Your task to perform on an android device: toggle javascript in the chrome app Image 0: 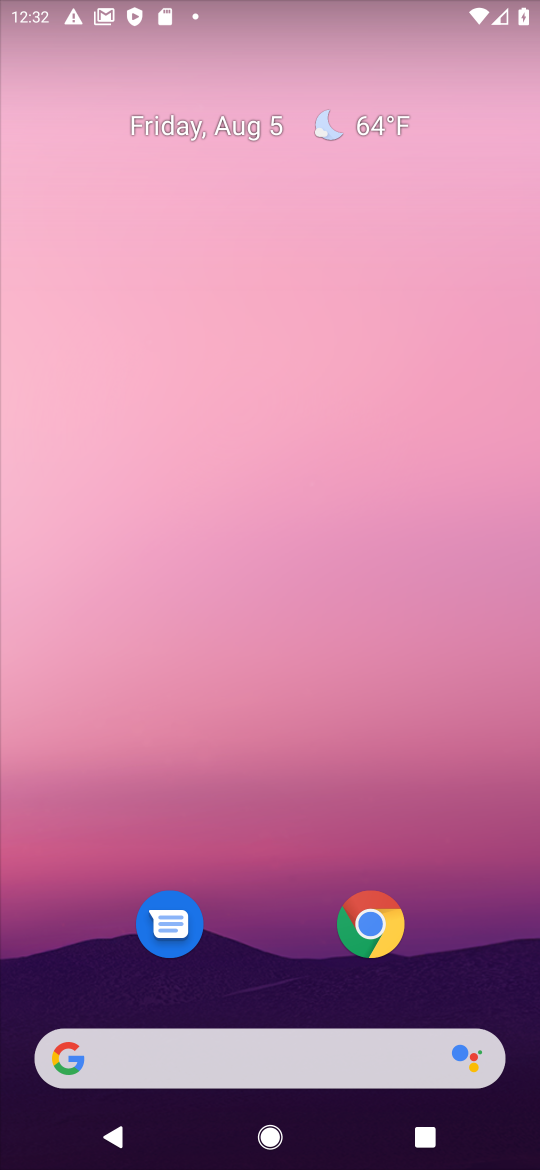
Step 0: press home button
Your task to perform on an android device: toggle javascript in the chrome app Image 1: 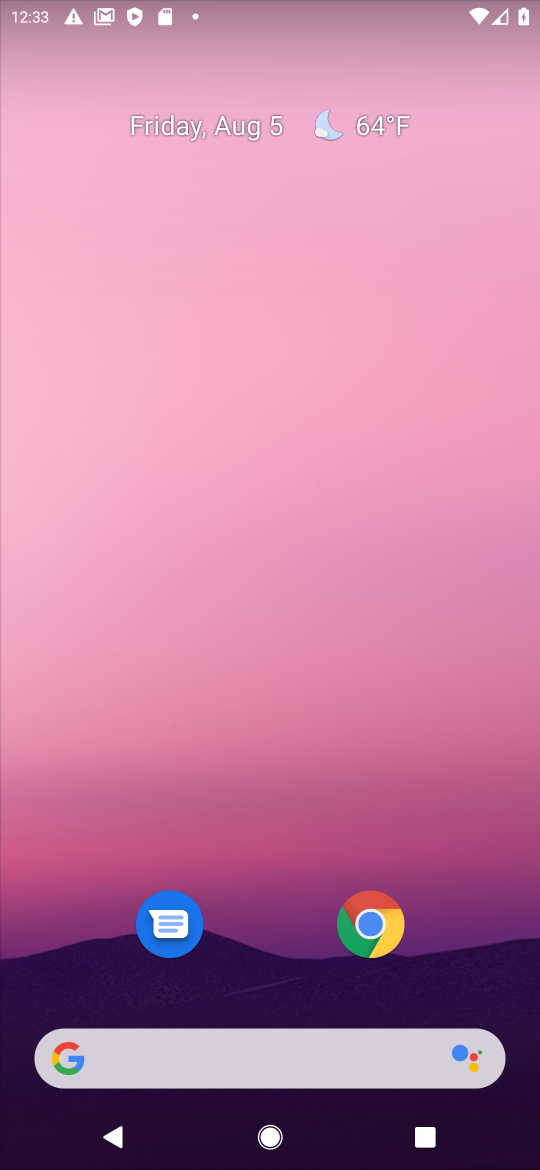
Step 1: click (361, 944)
Your task to perform on an android device: toggle javascript in the chrome app Image 2: 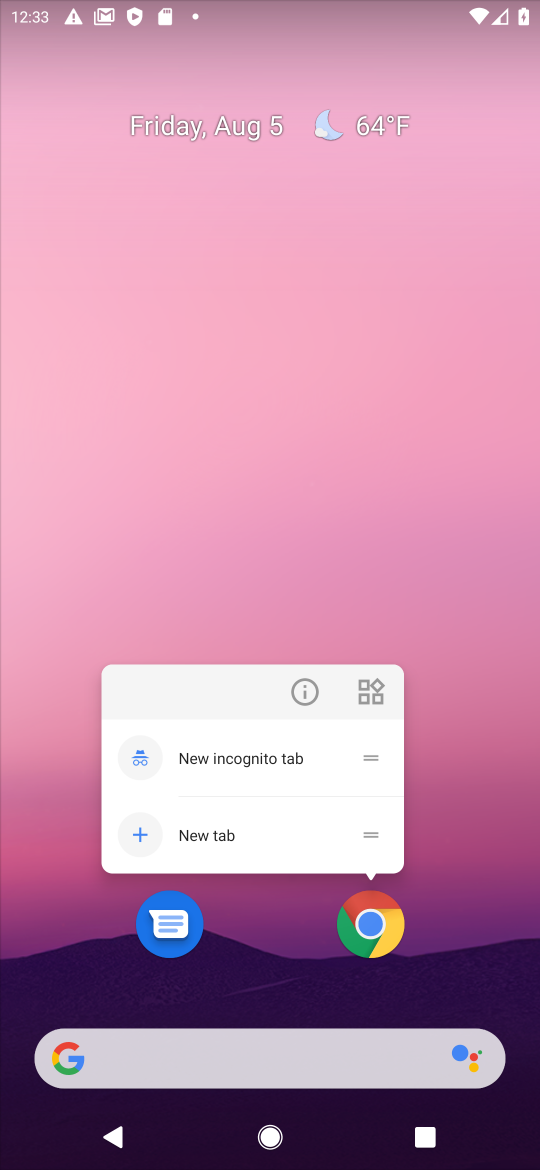
Step 2: click (350, 921)
Your task to perform on an android device: toggle javascript in the chrome app Image 3: 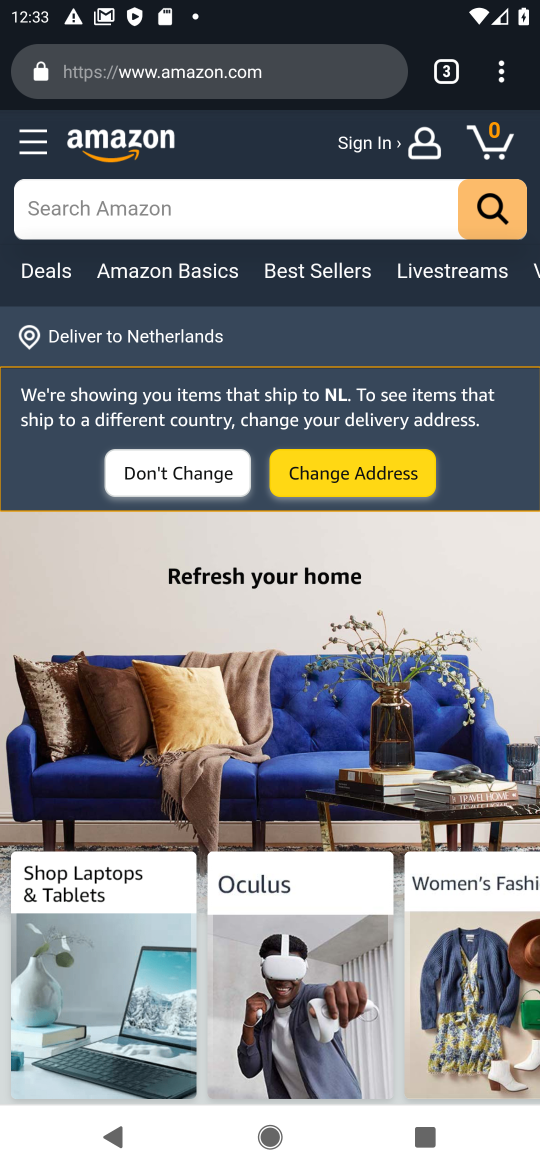
Step 3: drag from (492, 74) to (215, 864)
Your task to perform on an android device: toggle javascript in the chrome app Image 4: 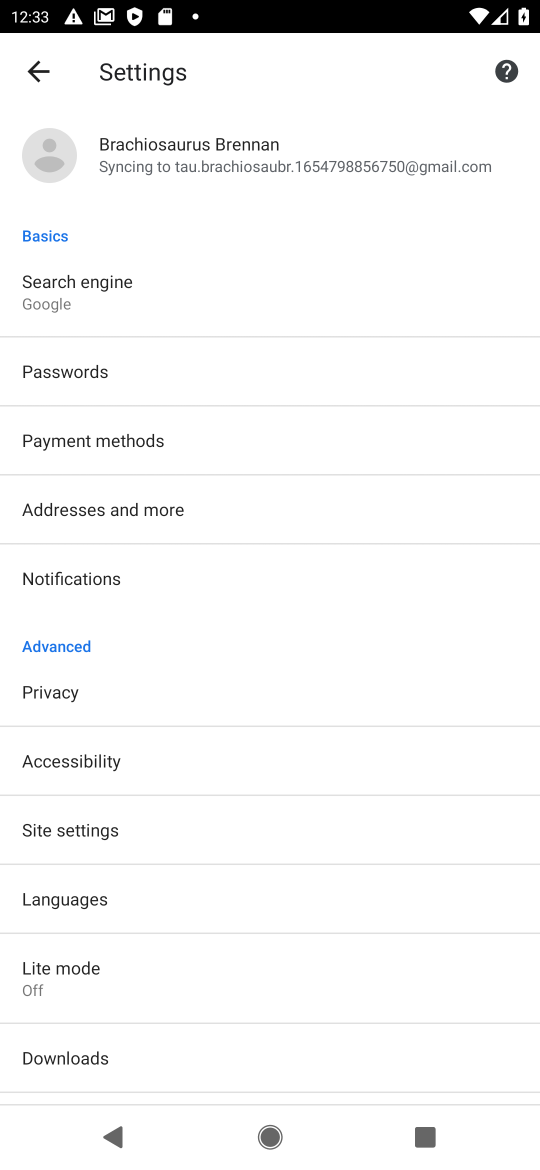
Step 4: click (77, 831)
Your task to perform on an android device: toggle javascript in the chrome app Image 5: 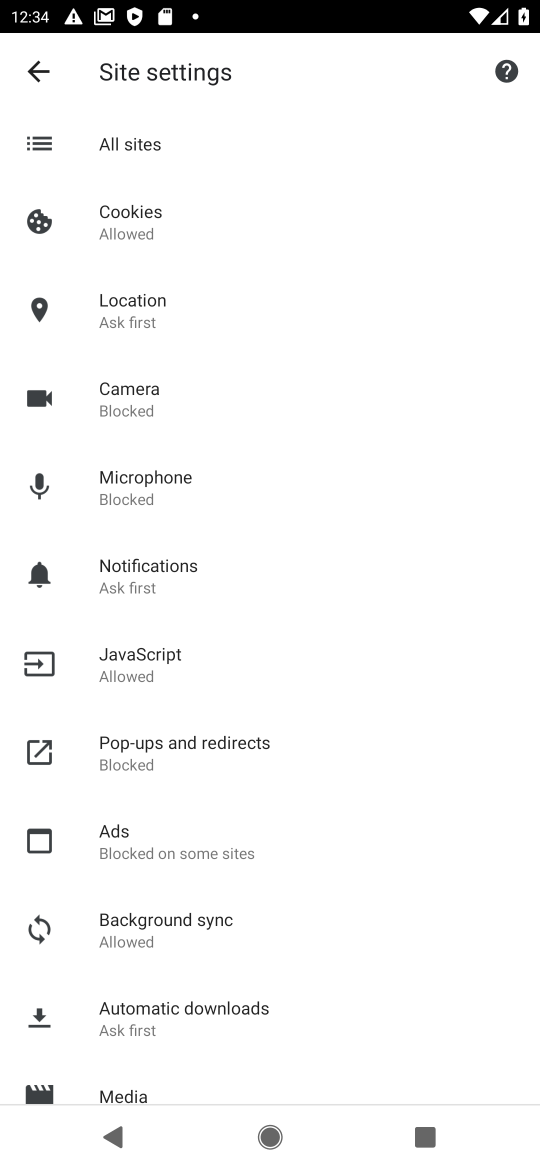
Step 5: drag from (382, 957) to (364, 799)
Your task to perform on an android device: toggle javascript in the chrome app Image 6: 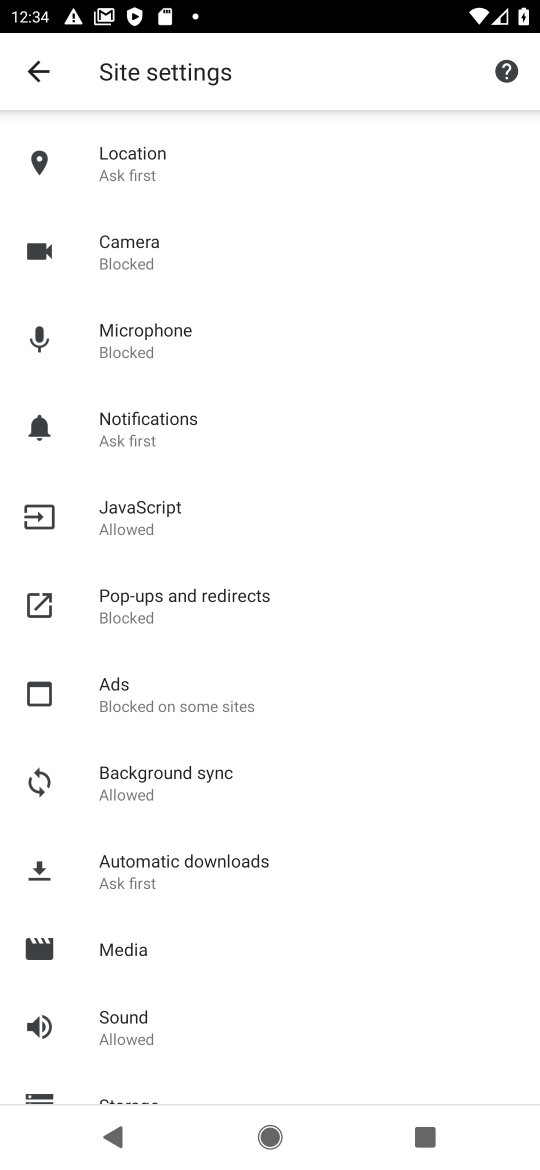
Step 6: drag from (345, 918) to (288, 466)
Your task to perform on an android device: toggle javascript in the chrome app Image 7: 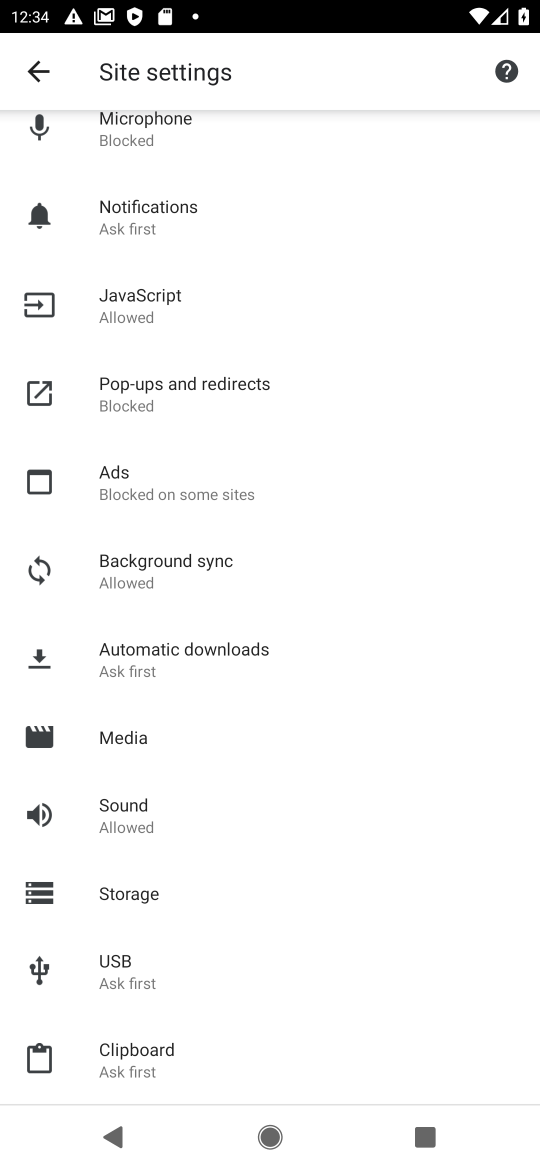
Step 7: click (111, 315)
Your task to perform on an android device: toggle javascript in the chrome app Image 8: 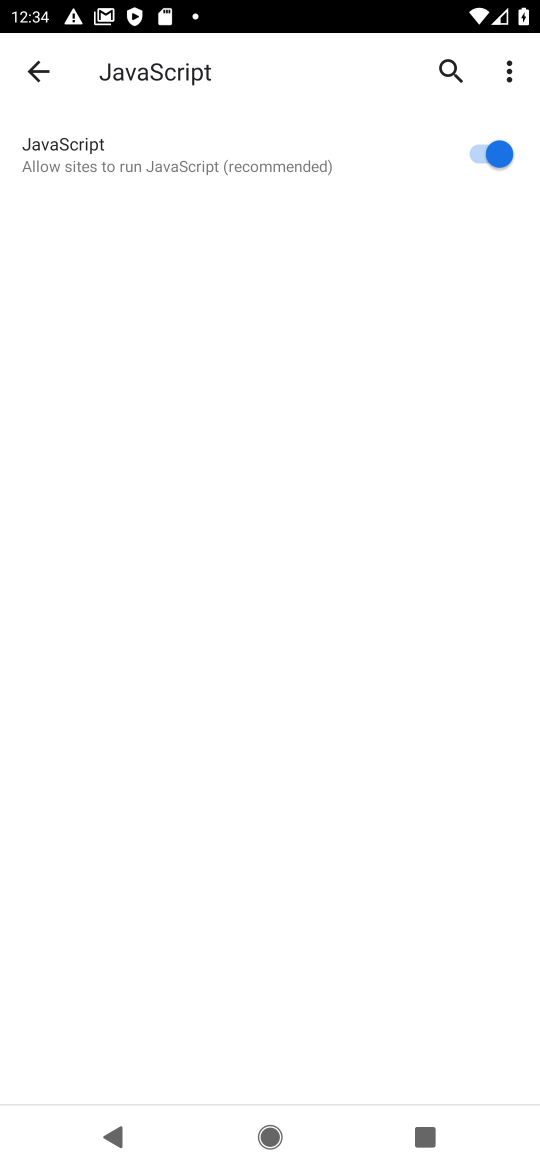
Step 8: click (497, 160)
Your task to perform on an android device: toggle javascript in the chrome app Image 9: 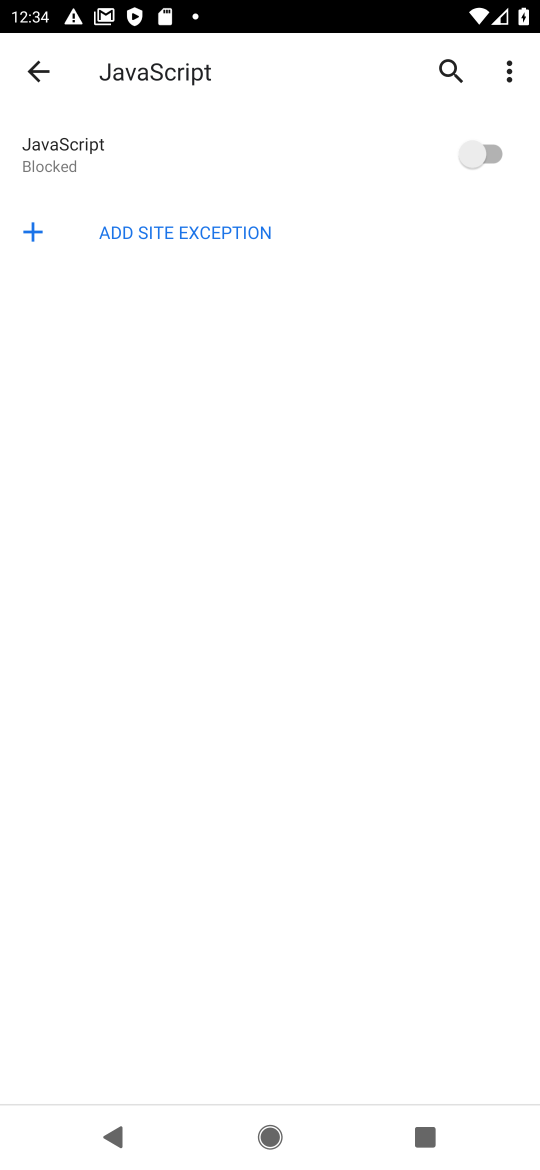
Step 9: task complete